Your task to perform on an android device: turn off notifications settings in the gmail app Image 0: 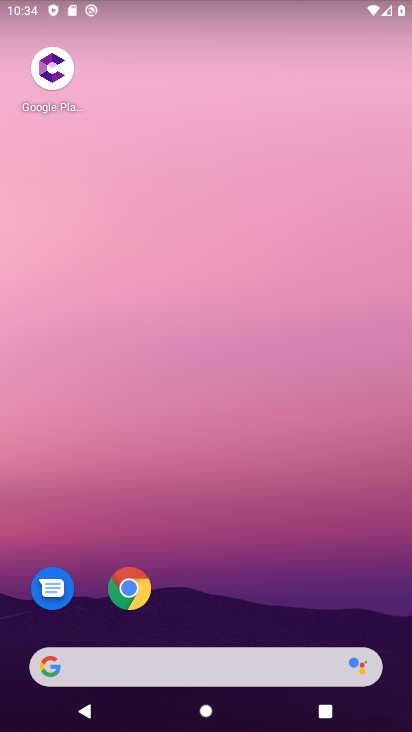
Step 0: drag from (219, 594) to (215, 148)
Your task to perform on an android device: turn off notifications settings in the gmail app Image 1: 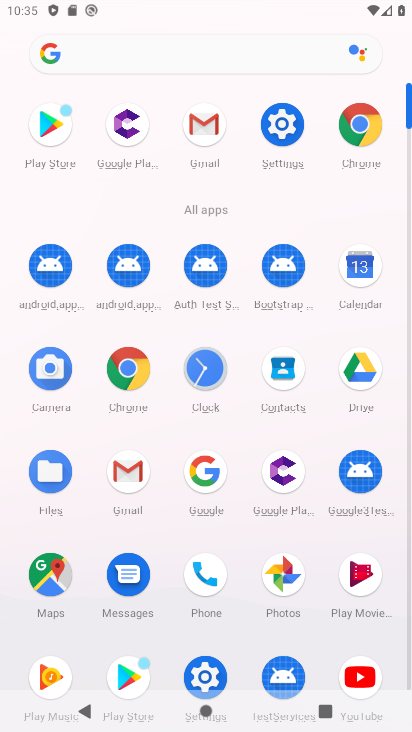
Step 1: click (201, 125)
Your task to perform on an android device: turn off notifications settings in the gmail app Image 2: 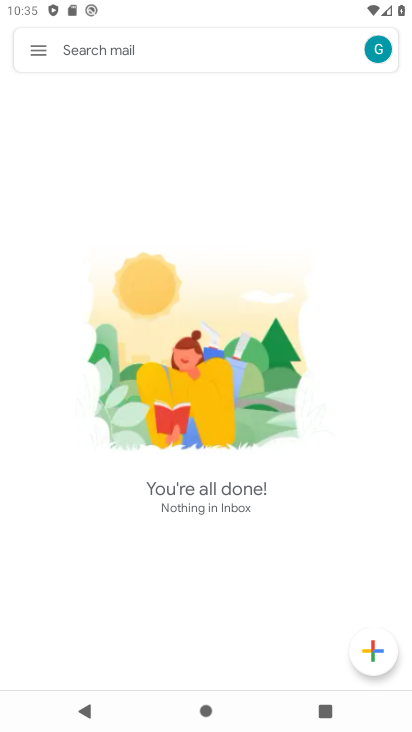
Step 2: click (34, 53)
Your task to perform on an android device: turn off notifications settings in the gmail app Image 3: 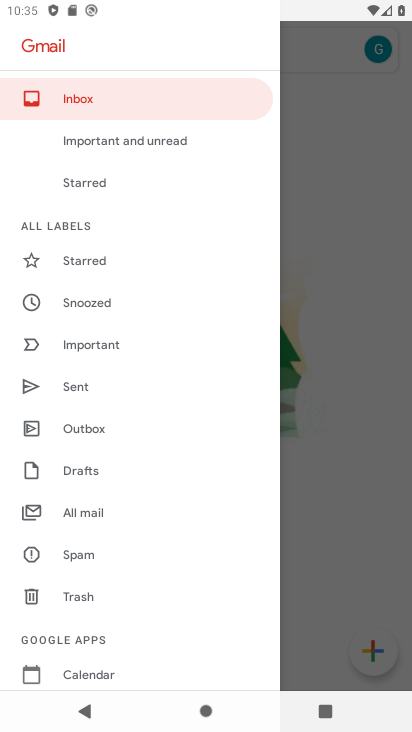
Step 3: drag from (128, 631) to (113, 251)
Your task to perform on an android device: turn off notifications settings in the gmail app Image 4: 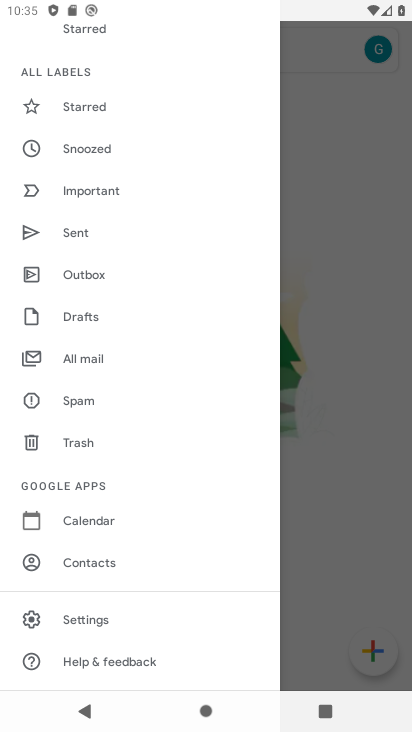
Step 4: click (105, 626)
Your task to perform on an android device: turn off notifications settings in the gmail app Image 5: 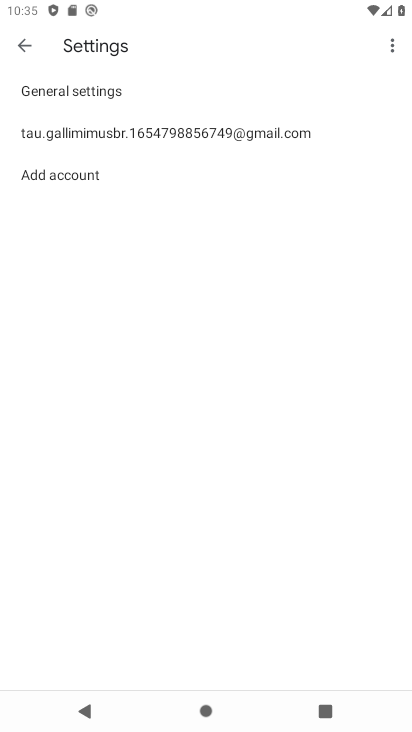
Step 5: click (222, 142)
Your task to perform on an android device: turn off notifications settings in the gmail app Image 6: 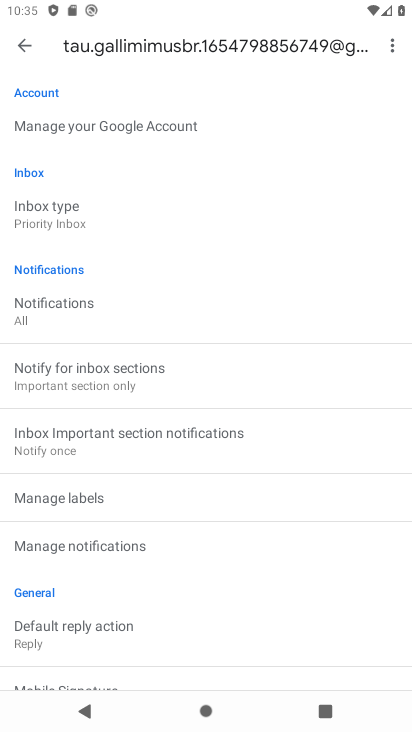
Step 6: click (182, 529)
Your task to perform on an android device: turn off notifications settings in the gmail app Image 7: 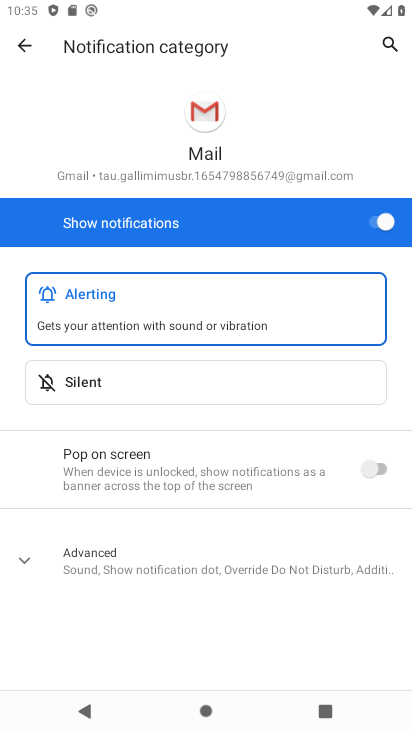
Step 7: task complete